Your task to perform on an android device: read, delete, or share a saved page in the chrome app Image 0: 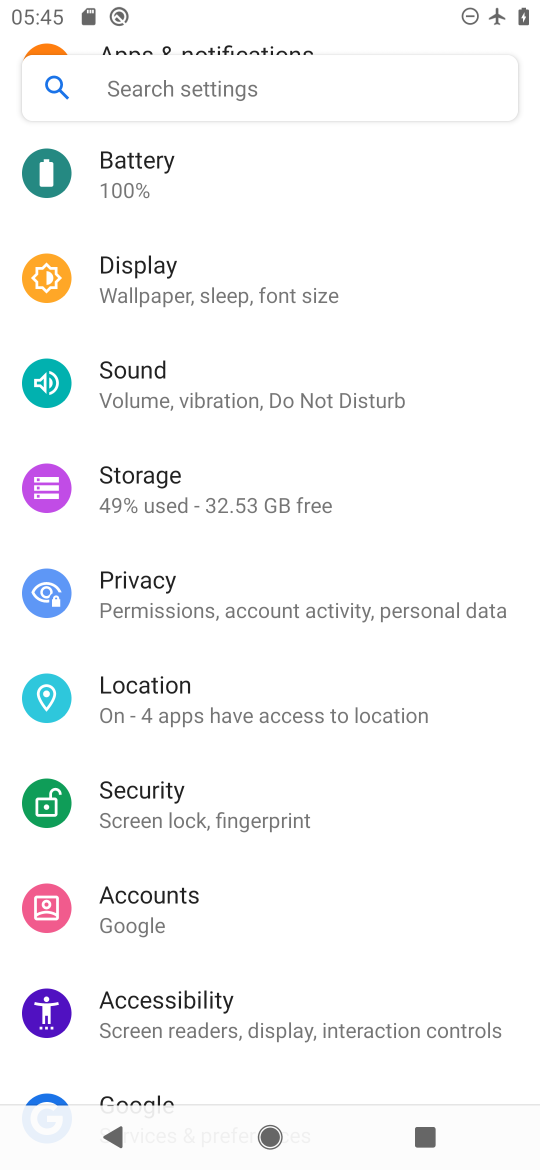
Step 0: press home button
Your task to perform on an android device: read, delete, or share a saved page in the chrome app Image 1: 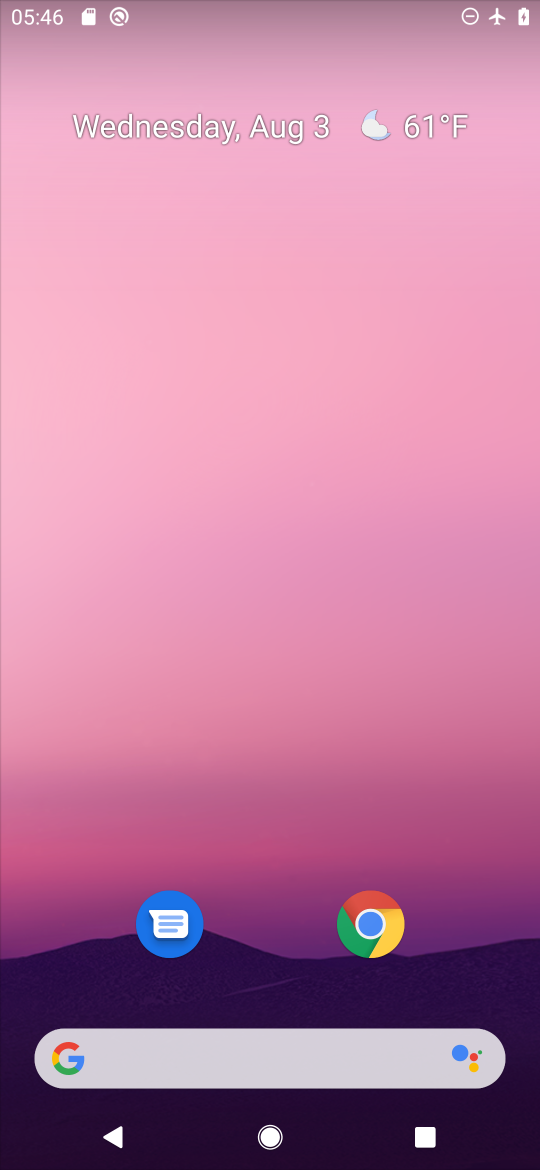
Step 1: click (381, 910)
Your task to perform on an android device: read, delete, or share a saved page in the chrome app Image 2: 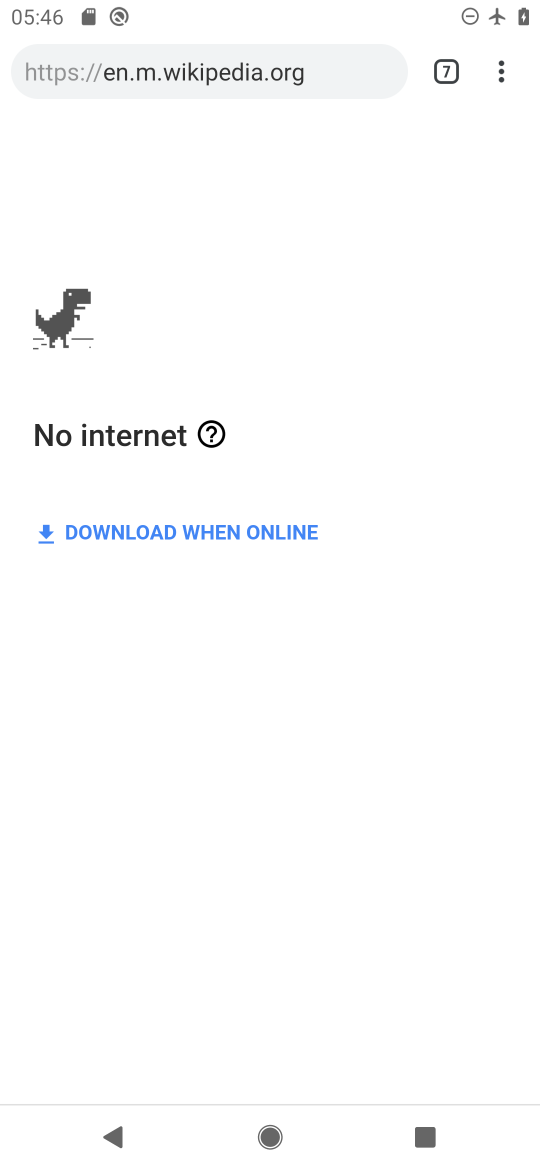
Step 2: click (508, 76)
Your task to perform on an android device: read, delete, or share a saved page in the chrome app Image 3: 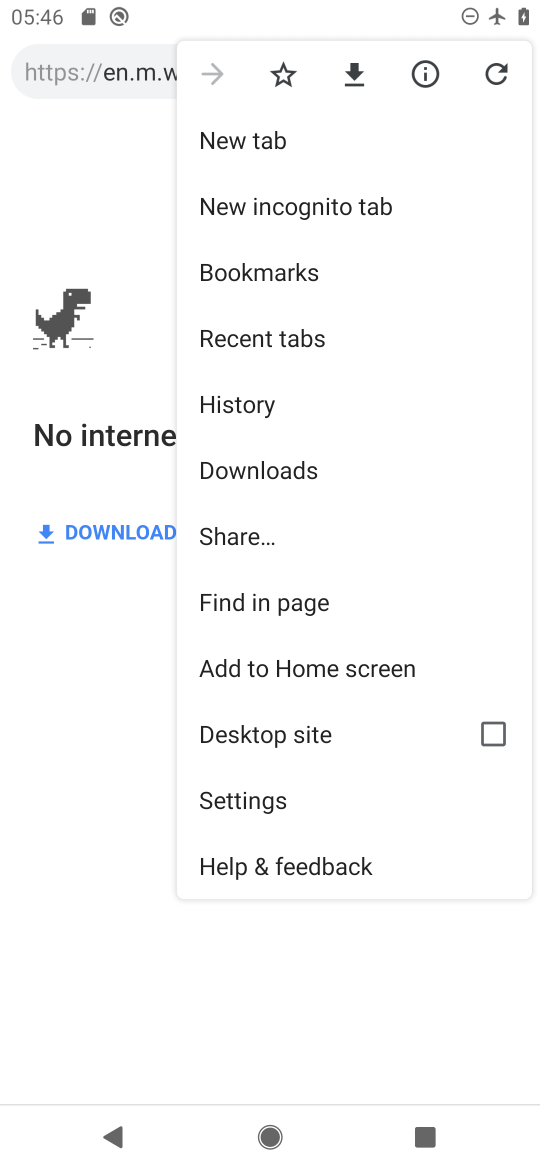
Step 3: click (251, 476)
Your task to perform on an android device: read, delete, or share a saved page in the chrome app Image 4: 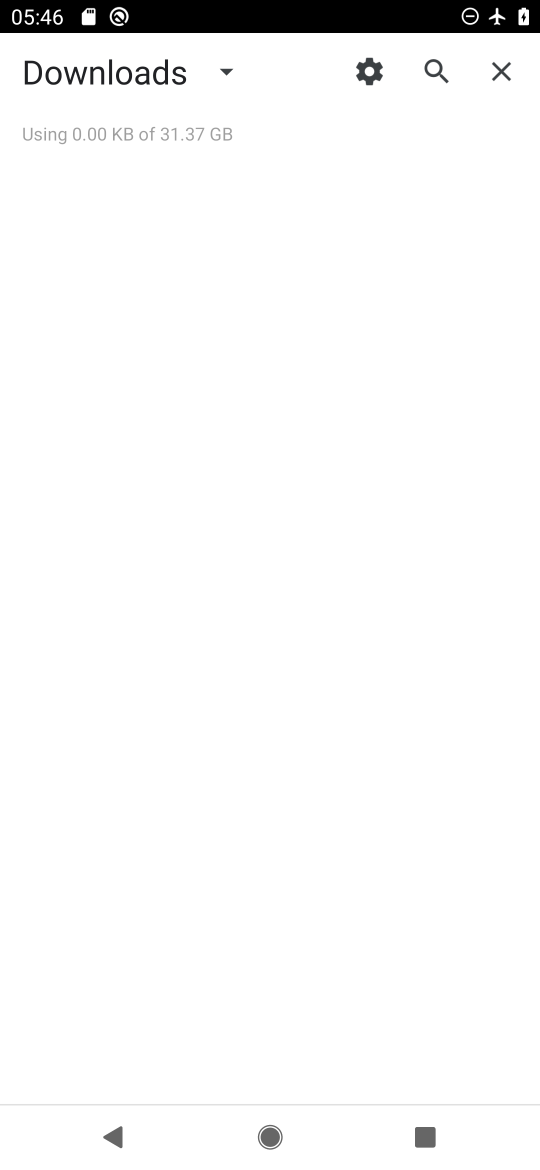
Step 4: click (194, 86)
Your task to perform on an android device: read, delete, or share a saved page in the chrome app Image 5: 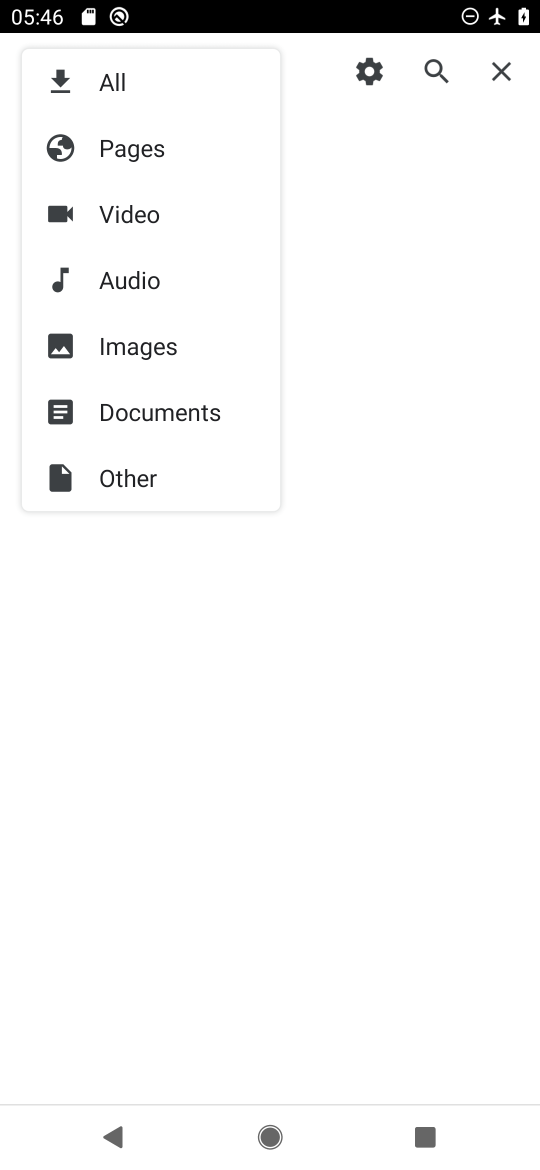
Step 5: click (114, 150)
Your task to perform on an android device: read, delete, or share a saved page in the chrome app Image 6: 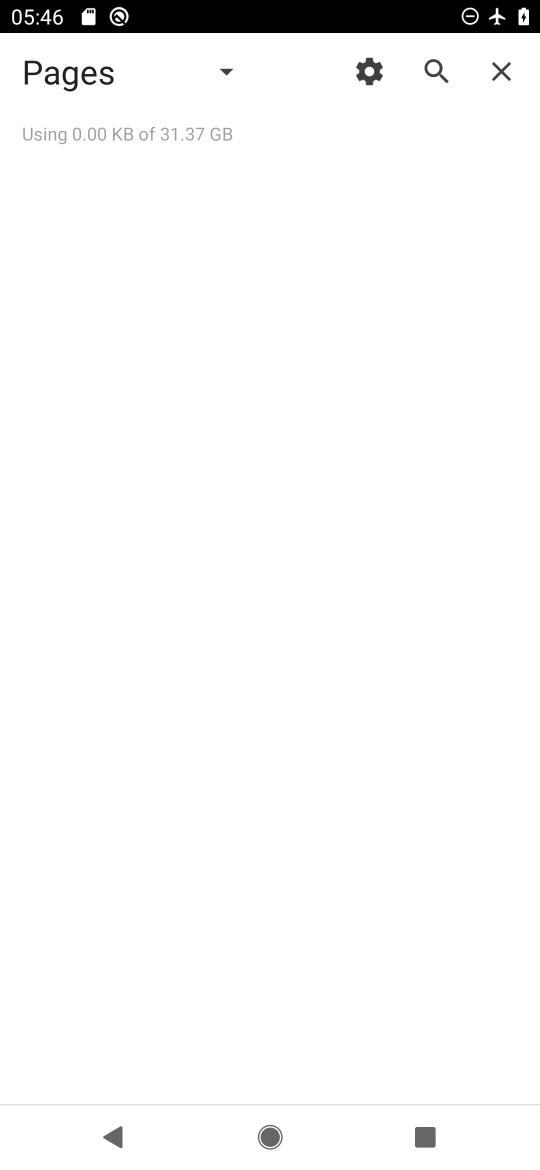
Step 6: task complete